Your task to perform on an android device: Google the capital of Paraguay Image 0: 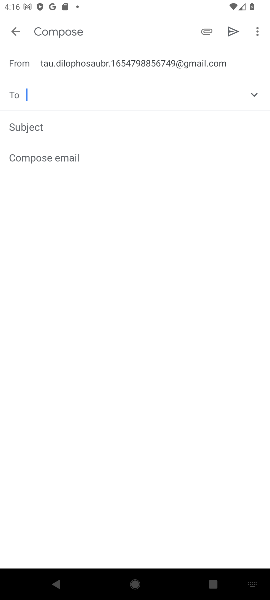
Step 0: press home button
Your task to perform on an android device: Google the capital of Paraguay Image 1: 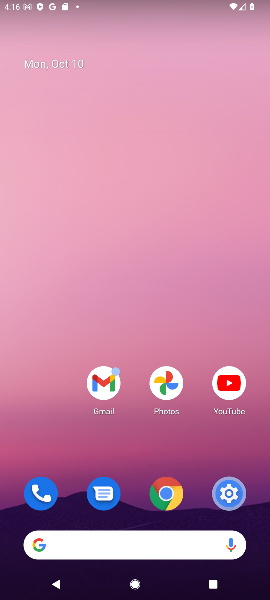
Step 1: click (136, 542)
Your task to perform on an android device: Google the capital of Paraguay Image 2: 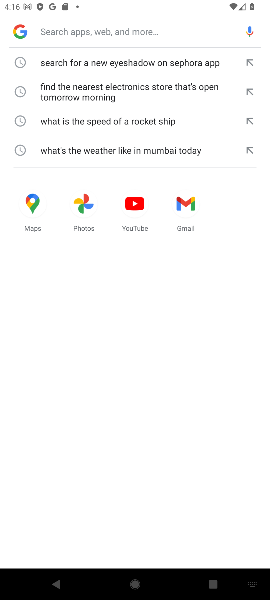
Step 2: type "Google the capital of Paraguay"
Your task to perform on an android device: Google the capital of Paraguay Image 3: 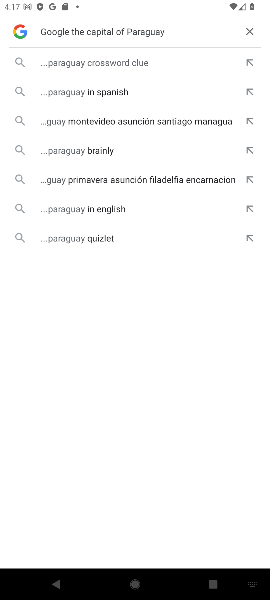
Step 3: click (158, 61)
Your task to perform on an android device: Google the capital of Paraguay Image 4: 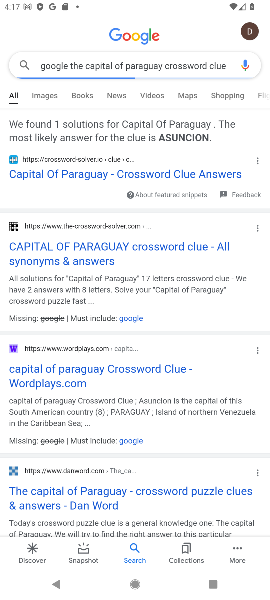
Step 4: task complete